Your task to perform on an android device: Open Google Maps and go to "Timeline" Image 0: 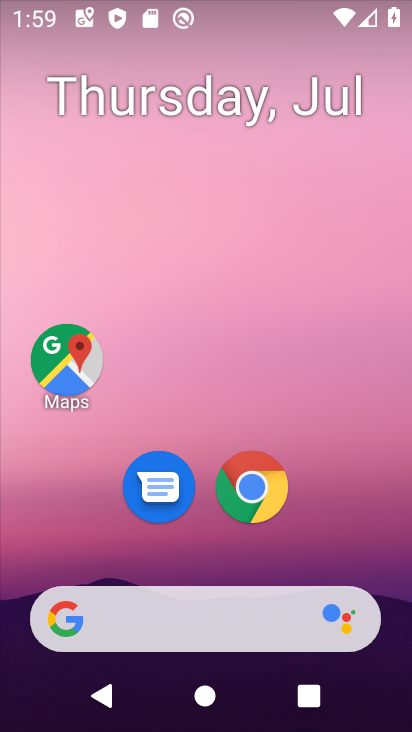
Step 0: drag from (379, 549) to (369, 169)
Your task to perform on an android device: Open Google Maps and go to "Timeline" Image 1: 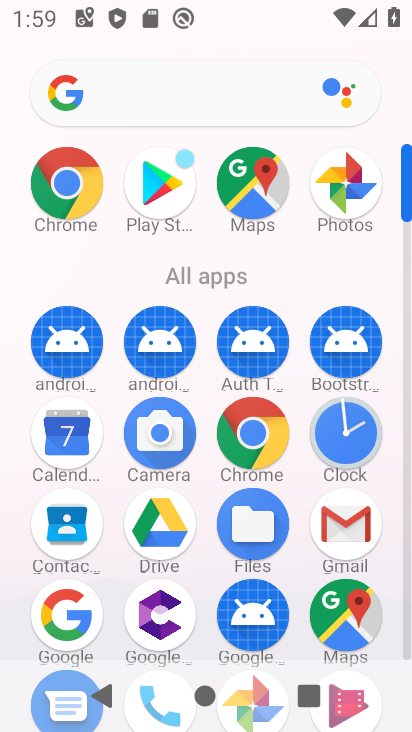
Step 1: click (355, 628)
Your task to perform on an android device: Open Google Maps and go to "Timeline" Image 2: 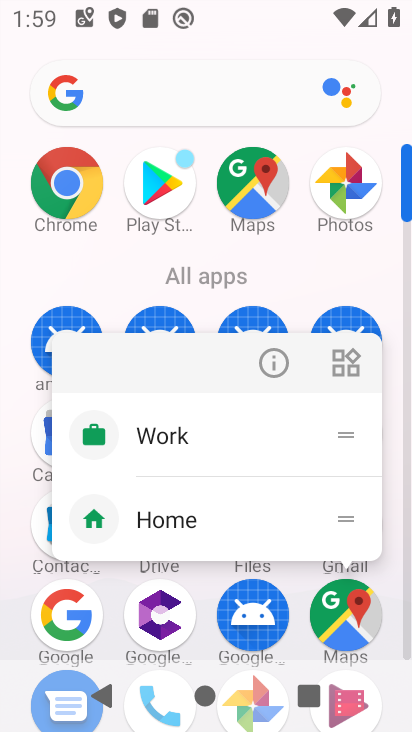
Step 2: click (355, 628)
Your task to perform on an android device: Open Google Maps and go to "Timeline" Image 3: 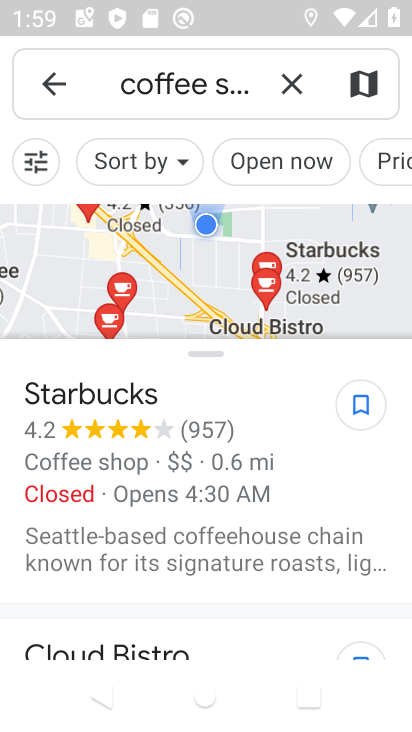
Step 3: press back button
Your task to perform on an android device: Open Google Maps and go to "Timeline" Image 4: 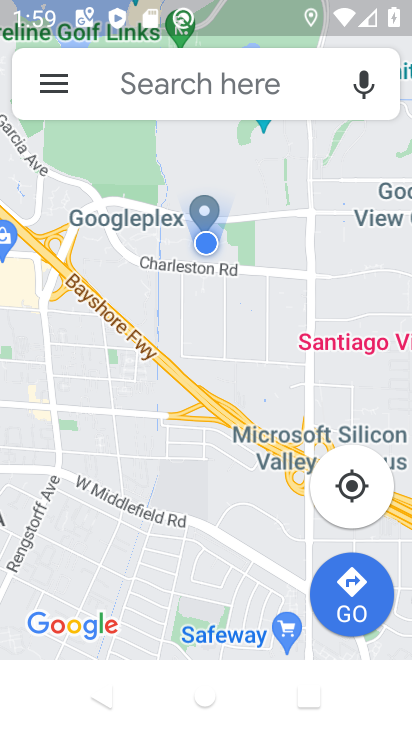
Step 4: click (56, 82)
Your task to perform on an android device: Open Google Maps and go to "Timeline" Image 5: 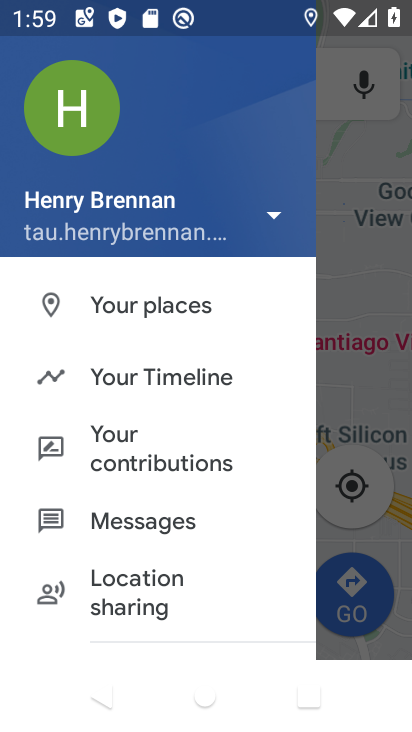
Step 5: click (222, 387)
Your task to perform on an android device: Open Google Maps and go to "Timeline" Image 6: 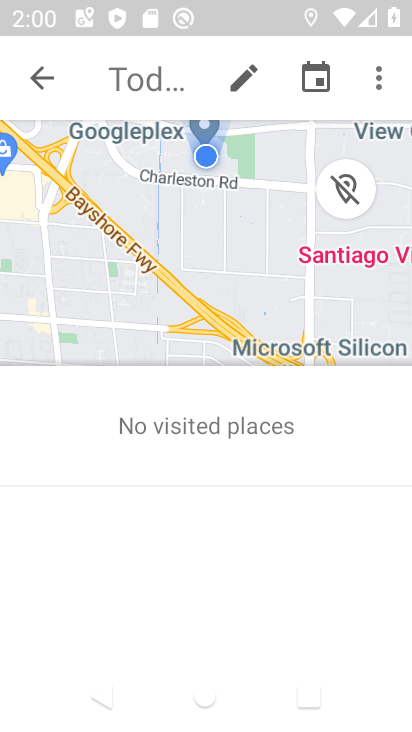
Step 6: task complete